Your task to perform on an android device: Clear all items from cart on bestbuy.com. Search for "razer nari" on bestbuy.com, select the first entry, add it to the cart, then select checkout. Image 0: 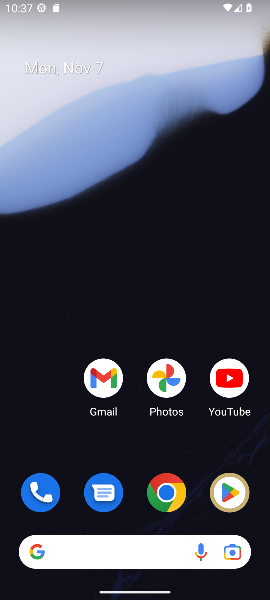
Step 0: drag from (137, 532) to (146, 104)
Your task to perform on an android device: Clear all items from cart on bestbuy.com. Search for "razer nari" on bestbuy.com, select the first entry, add it to the cart, then select checkout. Image 1: 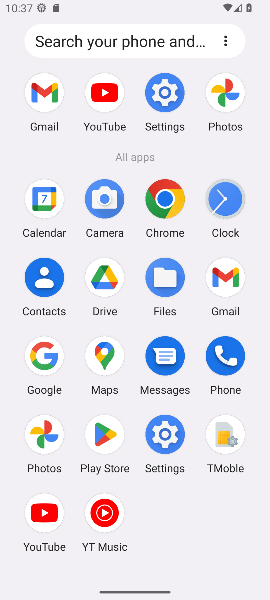
Step 1: click (164, 200)
Your task to perform on an android device: Clear all items from cart on bestbuy.com. Search for "razer nari" on bestbuy.com, select the first entry, add it to the cart, then select checkout. Image 2: 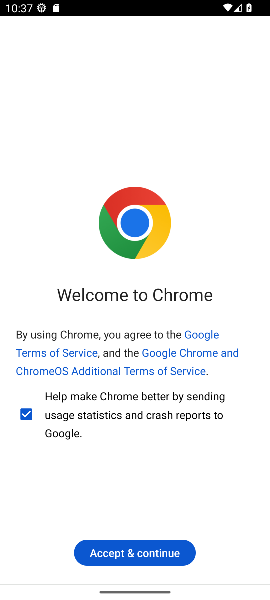
Step 2: click (144, 553)
Your task to perform on an android device: Clear all items from cart on bestbuy.com. Search for "razer nari" on bestbuy.com, select the first entry, add it to the cart, then select checkout. Image 3: 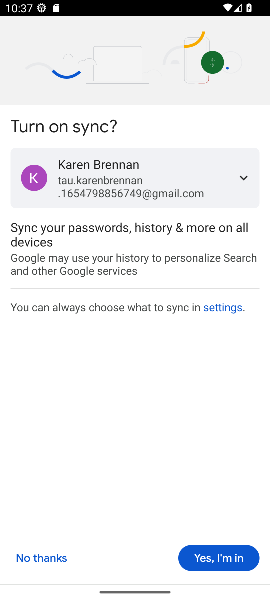
Step 3: click (205, 549)
Your task to perform on an android device: Clear all items from cart on bestbuy.com. Search for "razer nari" on bestbuy.com, select the first entry, add it to the cart, then select checkout. Image 4: 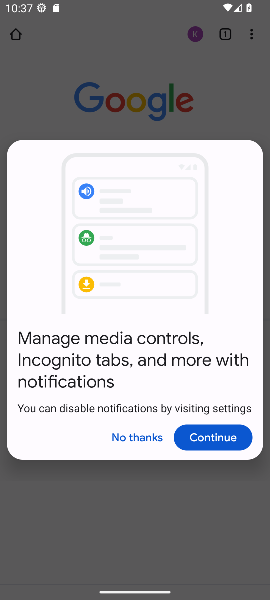
Step 4: click (213, 438)
Your task to perform on an android device: Clear all items from cart on bestbuy.com. Search for "razer nari" on bestbuy.com, select the first entry, add it to the cart, then select checkout. Image 5: 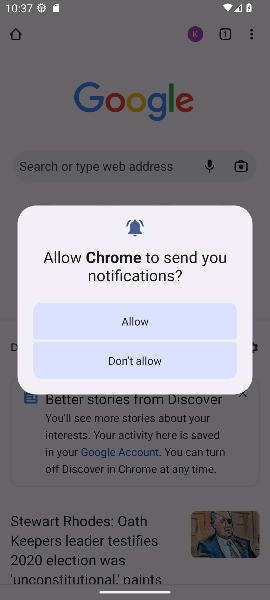
Step 5: click (169, 363)
Your task to perform on an android device: Clear all items from cart on bestbuy.com. Search for "razer nari" on bestbuy.com, select the first entry, add it to the cart, then select checkout. Image 6: 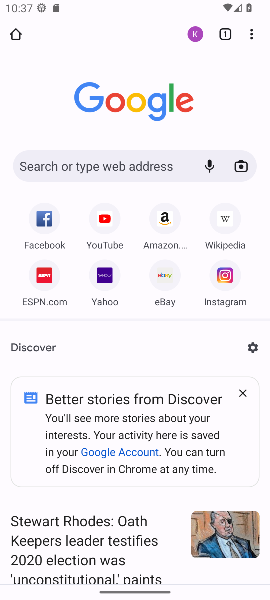
Step 6: click (145, 165)
Your task to perform on an android device: Clear all items from cart on bestbuy.com. Search for "razer nari" on bestbuy.com, select the first entry, add it to the cart, then select checkout. Image 7: 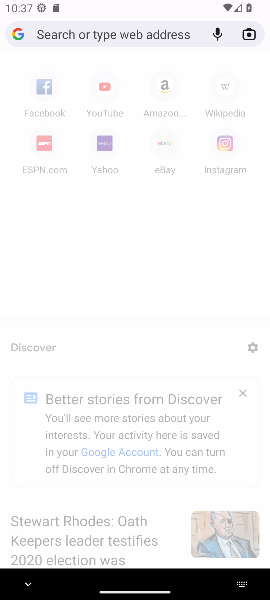
Step 7: type "bestbuy.com"
Your task to perform on an android device: Clear all items from cart on bestbuy.com. Search for "razer nari" on bestbuy.com, select the first entry, add it to the cart, then select checkout. Image 8: 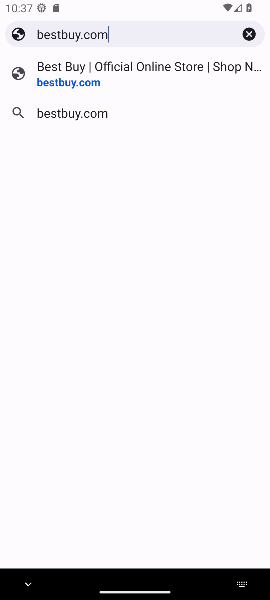
Step 8: press enter
Your task to perform on an android device: Clear all items from cart on bestbuy.com. Search for "razer nari" on bestbuy.com, select the first entry, add it to the cart, then select checkout. Image 9: 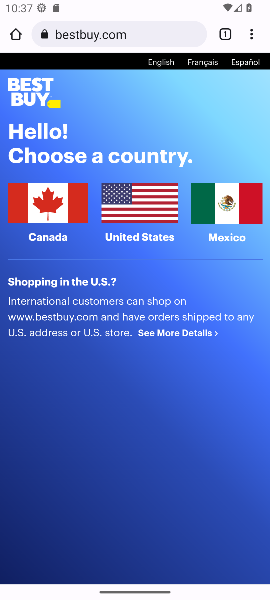
Step 9: click (63, 203)
Your task to perform on an android device: Clear all items from cart on bestbuy.com. Search for "razer nari" on bestbuy.com, select the first entry, add it to the cart, then select checkout. Image 10: 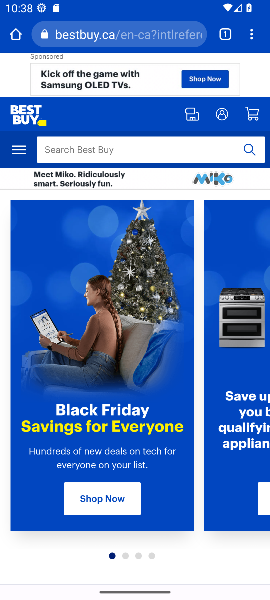
Step 10: click (183, 146)
Your task to perform on an android device: Clear all items from cart on bestbuy.com. Search for "razer nari" on bestbuy.com, select the first entry, add it to the cart, then select checkout. Image 11: 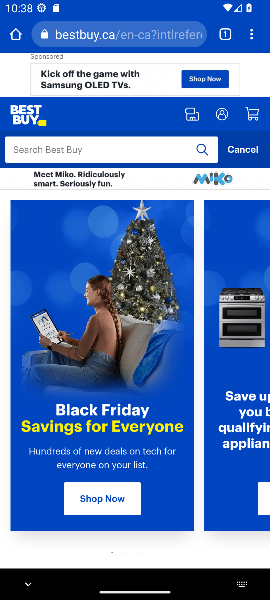
Step 11: type "razer nari"
Your task to perform on an android device: Clear all items from cart on bestbuy.com. Search for "razer nari" on bestbuy.com, select the first entry, add it to the cart, then select checkout. Image 12: 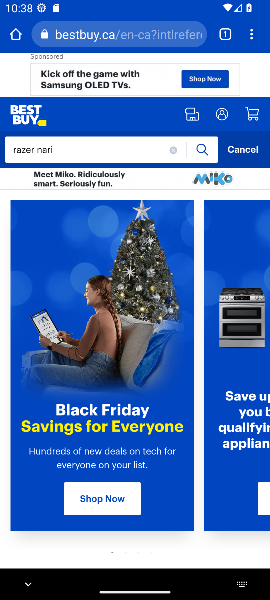
Step 12: press enter
Your task to perform on an android device: Clear all items from cart on bestbuy.com. Search for "razer nari" on bestbuy.com, select the first entry, add it to the cart, then select checkout. Image 13: 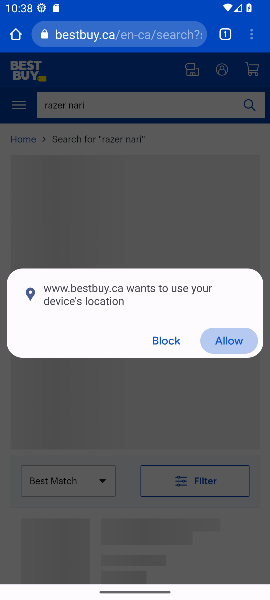
Step 13: click (169, 339)
Your task to perform on an android device: Clear all items from cart on bestbuy.com. Search for "razer nari" on bestbuy.com, select the first entry, add it to the cart, then select checkout. Image 14: 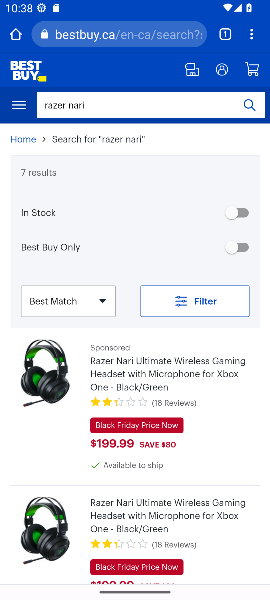
Step 14: drag from (208, 500) to (218, 357)
Your task to perform on an android device: Clear all items from cart on bestbuy.com. Search for "razer nari" on bestbuy.com, select the first entry, add it to the cart, then select checkout. Image 15: 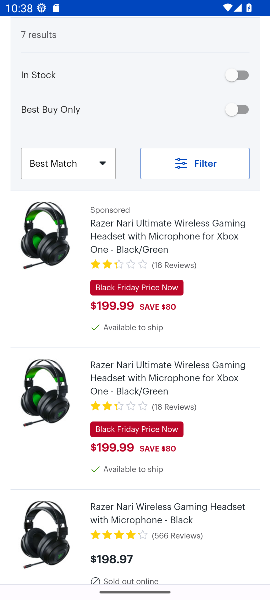
Step 15: click (183, 385)
Your task to perform on an android device: Clear all items from cart on bestbuy.com. Search for "razer nari" on bestbuy.com, select the first entry, add it to the cart, then select checkout. Image 16: 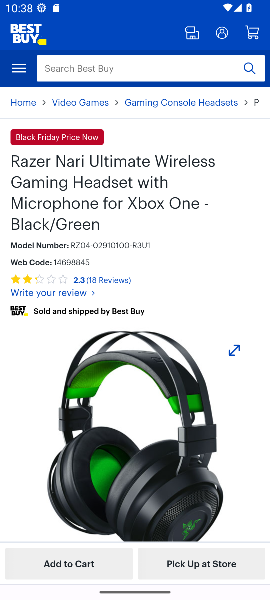
Step 16: drag from (165, 427) to (173, 154)
Your task to perform on an android device: Clear all items from cart on bestbuy.com. Search for "razer nari" on bestbuy.com, select the first entry, add it to the cart, then select checkout. Image 17: 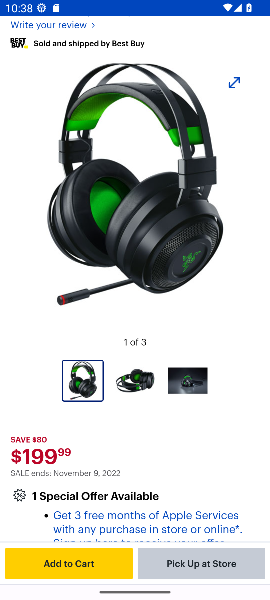
Step 17: click (85, 568)
Your task to perform on an android device: Clear all items from cart on bestbuy.com. Search for "razer nari" on bestbuy.com, select the first entry, add it to the cart, then select checkout. Image 18: 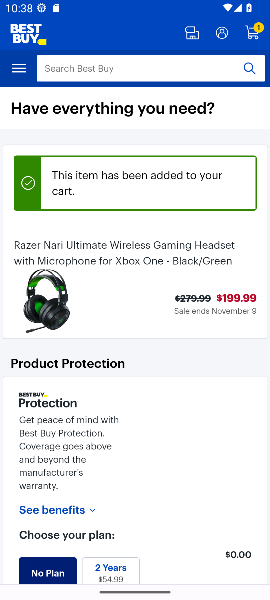
Step 18: drag from (139, 472) to (186, 133)
Your task to perform on an android device: Clear all items from cart on bestbuy.com. Search for "razer nari" on bestbuy.com, select the first entry, add it to the cart, then select checkout. Image 19: 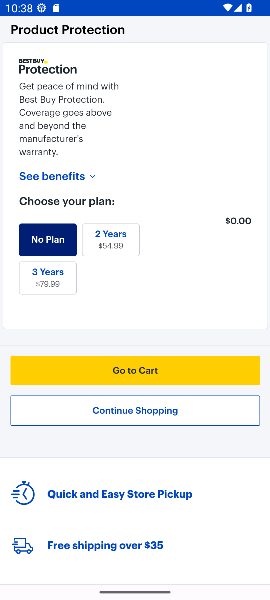
Step 19: click (175, 366)
Your task to perform on an android device: Clear all items from cart on bestbuy.com. Search for "razer nari" on bestbuy.com, select the first entry, add it to the cart, then select checkout. Image 20: 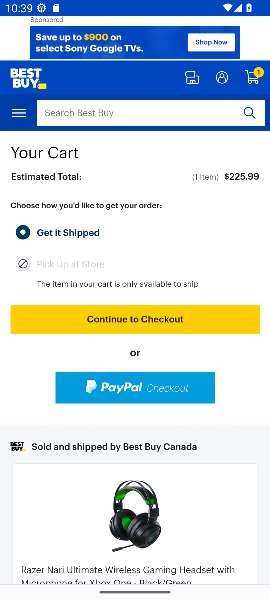
Step 20: click (170, 316)
Your task to perform on an android device: Clear all items from cart on bestbuy.com. Search for "razer nari" on bestbuy.com, select the first entry, add it to the cart, then select checkout. Image 21: 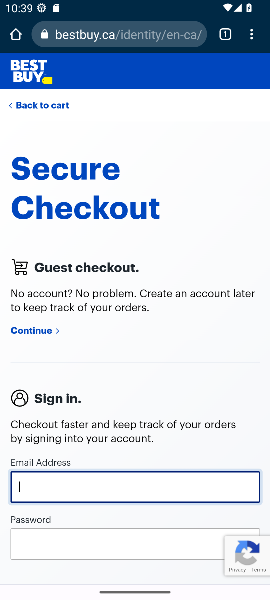
Step 21: task complete